Your task to perform on an android device: turn on notifications settings in the gmail app Image 0: 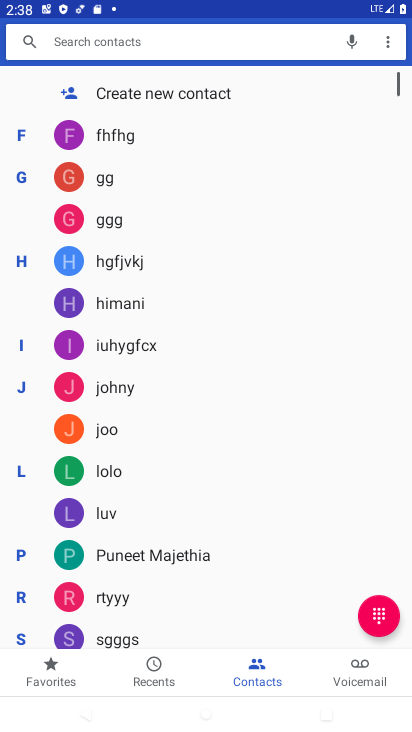
Step 0: press home button
Your task to perform on an android device: turn on notifications settings in the gmail app Image 1: 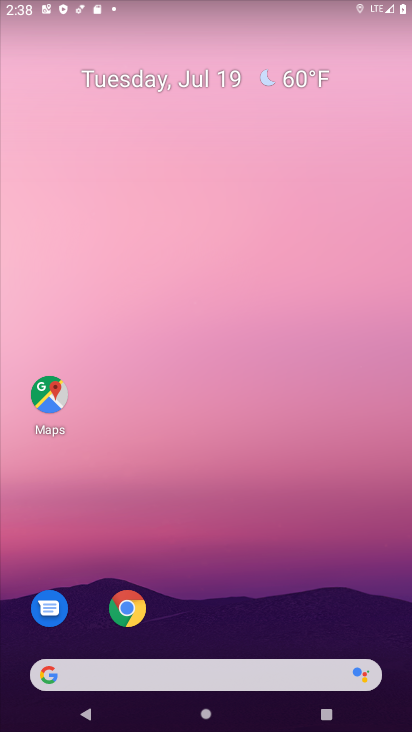
Step 1: drag from (266, 544) to (183, 18)
Your task to perform on an android device: turn on notifications settings in the gmail app Image 2: 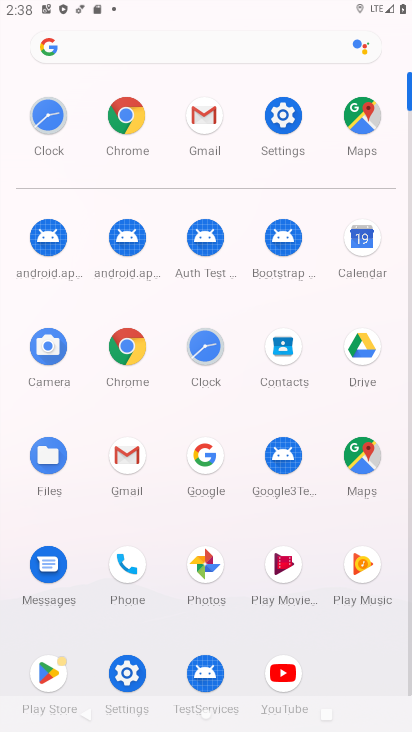
Step 2: click (199, 112)
Your task to perform on an android device: turn on notifications settings in the gmail app Image 3: 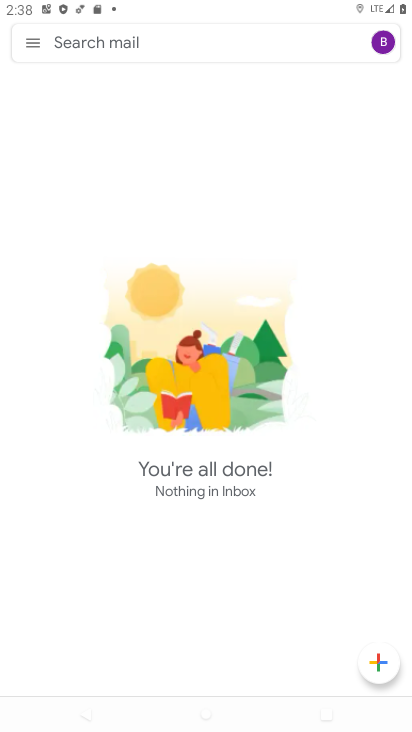
Step 3: click (29, 50)
Your task to perform on an android device: turn on notifications settings in the gmail app Image 4: 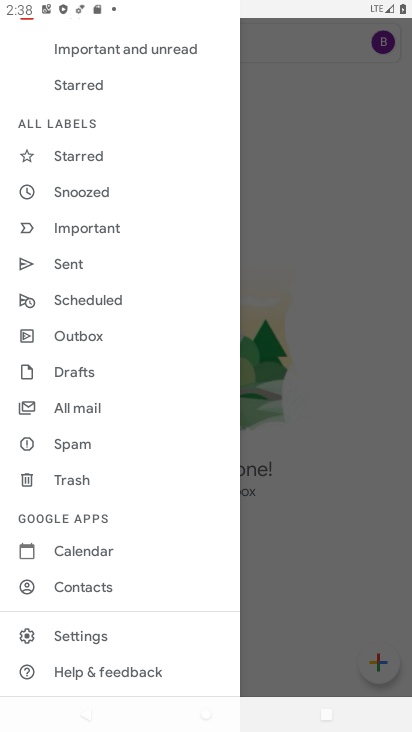
Step 4: click (76, 628)
Your task to perform on an android device: turn on notifications settings in the gmail app Image 5: 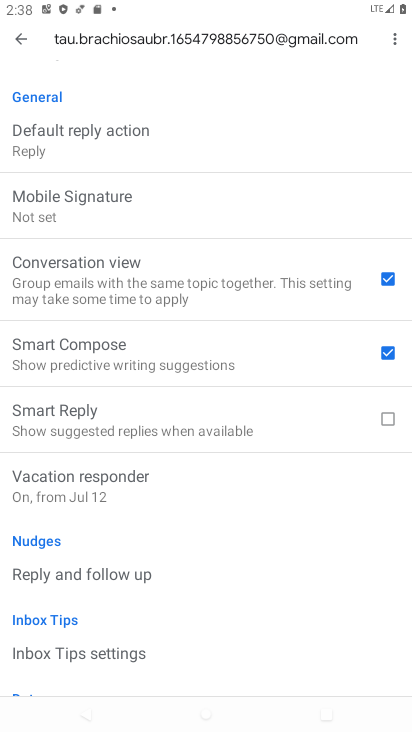
Step 5: drag from (135, 209) to (164, 495)
Your task to perform on an android device: turn on notifications settings in the gmail app Image 6: 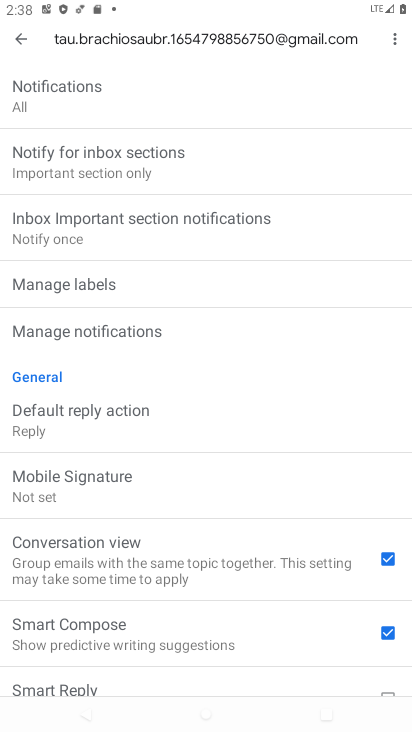
Step 6: click (59, 97)
Your task to perform on an android device: turn on notifications settings in the gmail app Image 7: 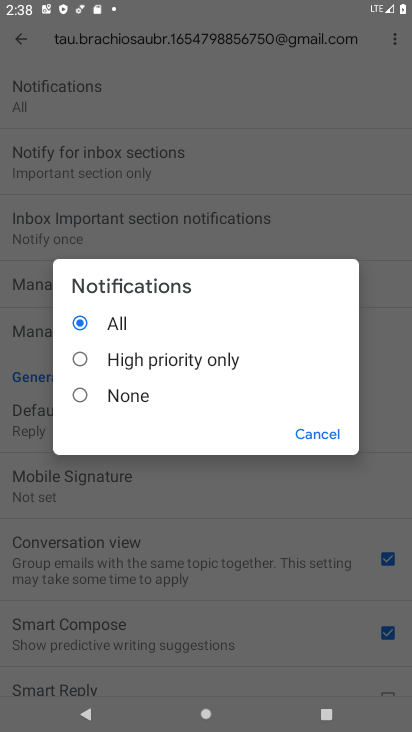
Step 7: task complete